Your task to perform on an android device: find photos in the google photos app Image 0: 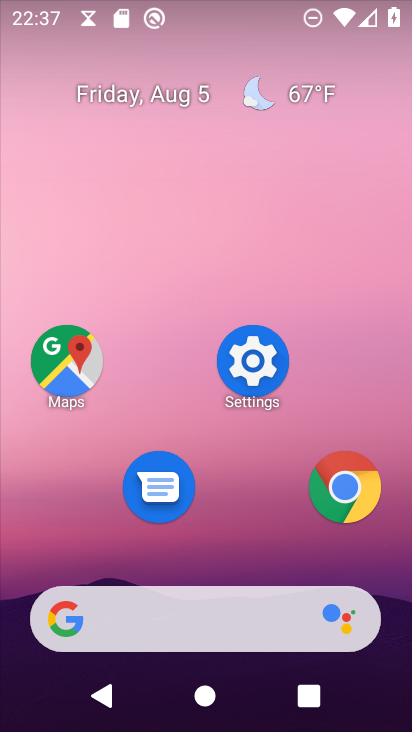
Step 0: press home button
Your task to perform on an android device: find photos in the google photos app Image 1: 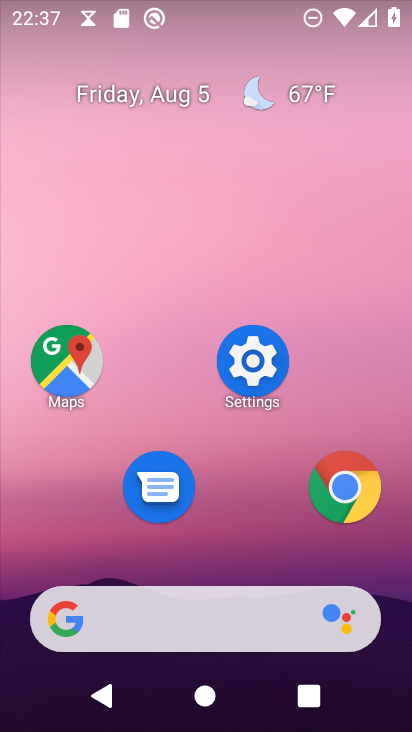
Step 1: drag from (190, 621) to (321, 156)
Your task to perform on an android device: find photos in the google photos app Image 2: 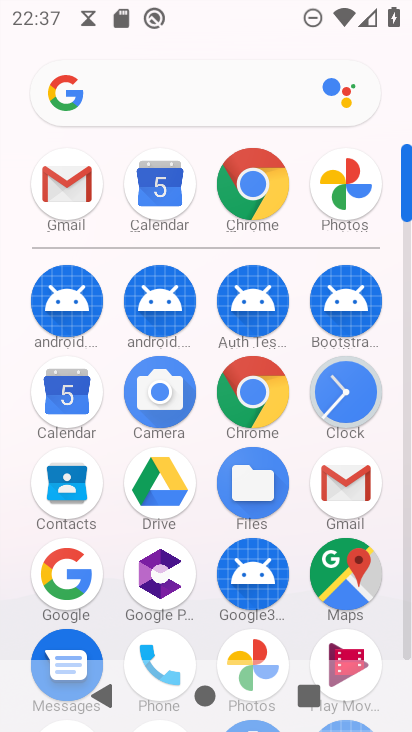
Step 2: drag from (213, 578) to (364, 158)
Your task to perform on an android device: find photos in the google photos app Image 3: 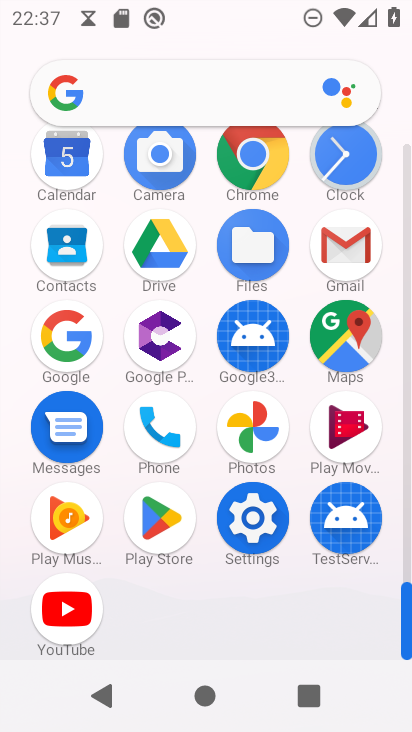
Step 3: click (245, 426)
Your task to perform on an android device: find photos in the google photos app Image 4: 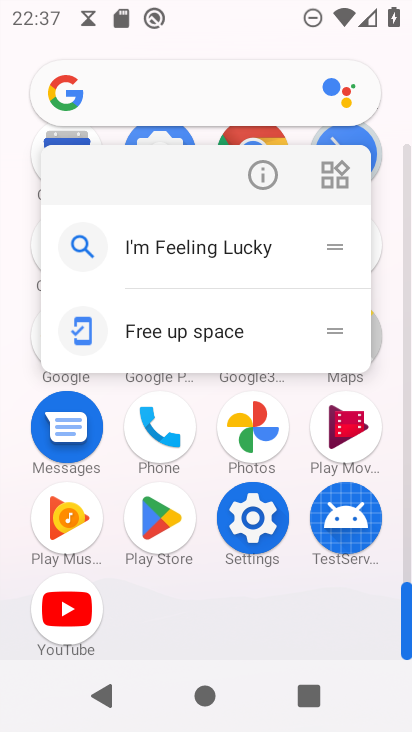
Step 4: click (252, 420)
Your task to perform on an android device: find photos in the google photos app Image 5: 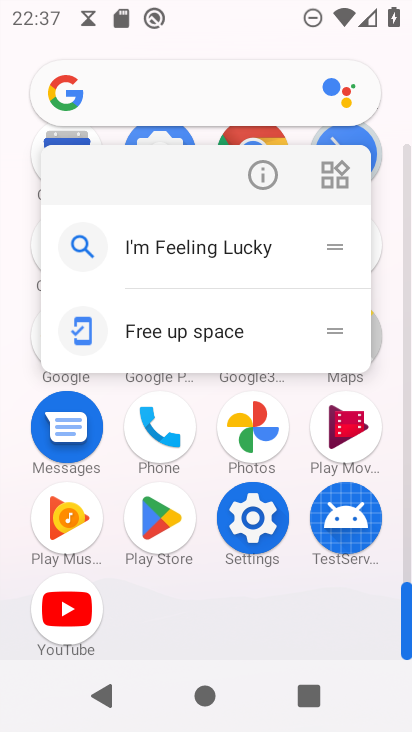
Step 5: click (254, 426)
Your task to perform on an android device: find photos in the google photos app Image 6: 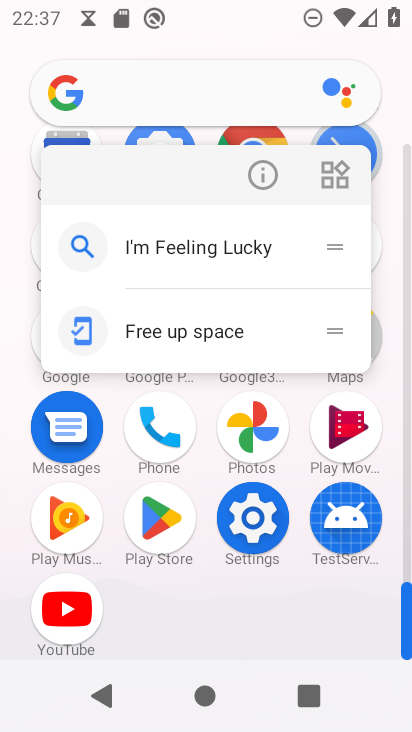
Step 6: click (254, 427)
Your task to perform on an android device: find photos in the google photos app Image 7: 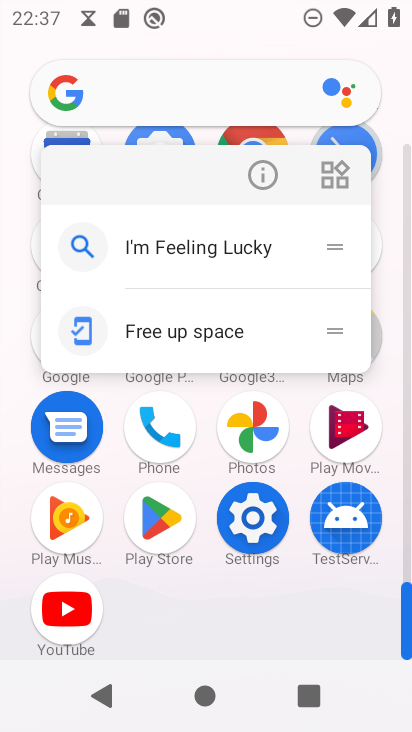
Step 7: click (253, 429)
Your task to perform on an android device: find photos in the google photos app Image 8: 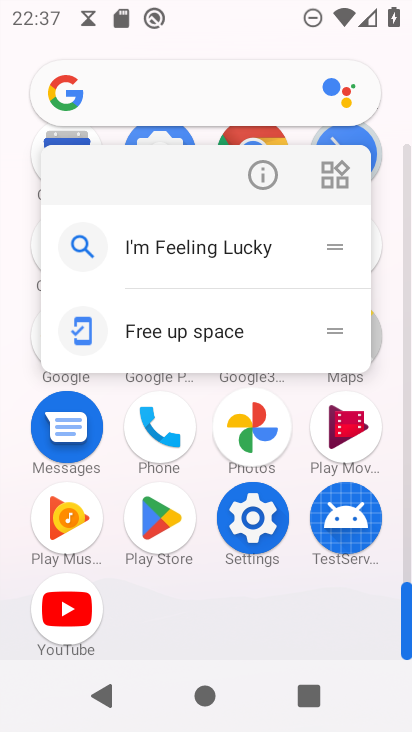
Step 8: click (253, 429)
Your task to perform on an android device: find photos in the google photos app Image 9: 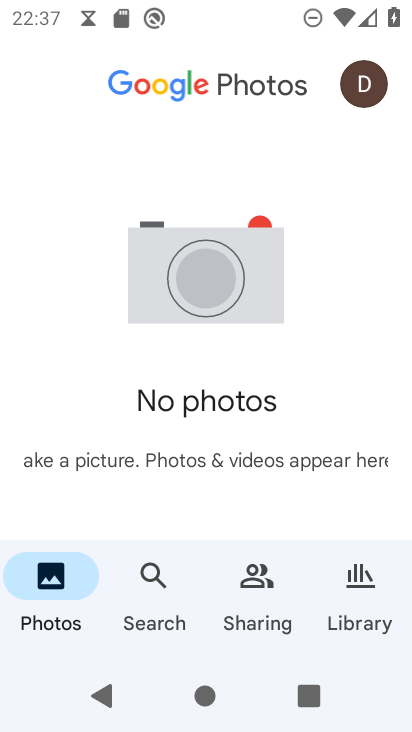
Step 9: click (45, 593)
Your task to perform on an android device: find photos in the google photos app Image 10: 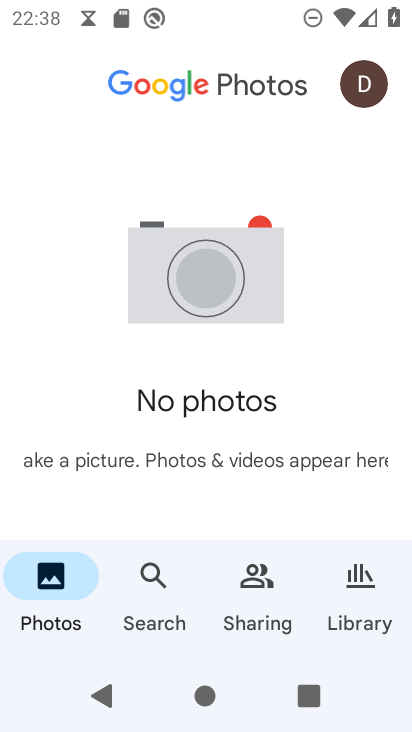
Step 10: task complete